Your task to perform on an android device: Go to Wikipedia Image 0: 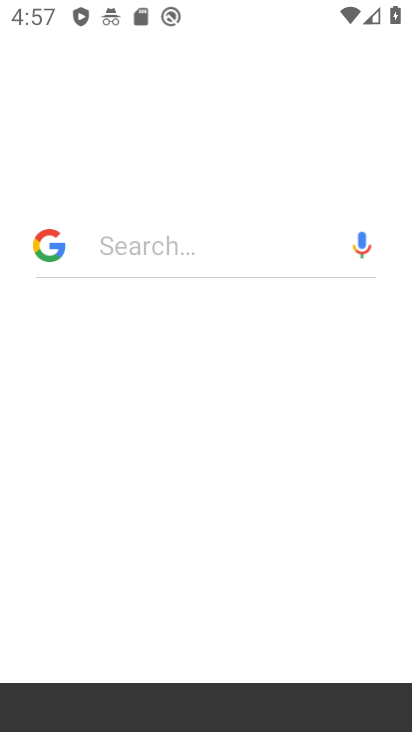
Step 0: drag from (366, 574) to (364, 538)
Your task to perform on an android device: Go to Wikipedia Image 1: 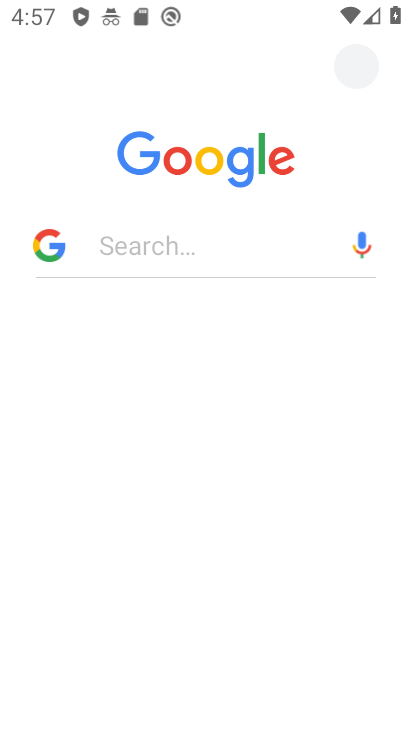
Step 1: press home button
Your task to perform on an android device: Go to Wikipedia Image 2: 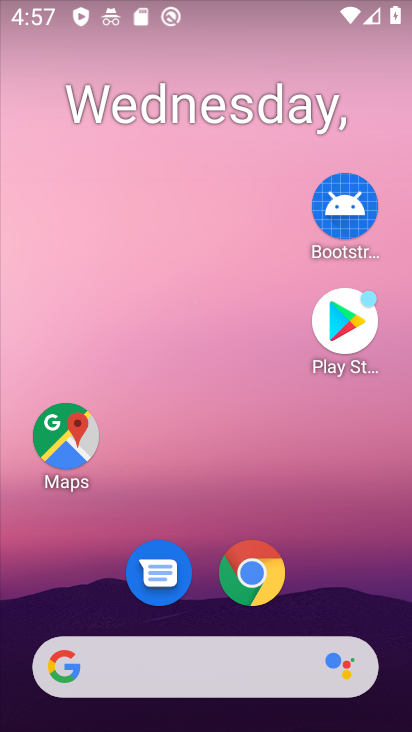
Step 2: click (234, 584)
Your task to perform on an android device: Go to Wikipedia Image 3: 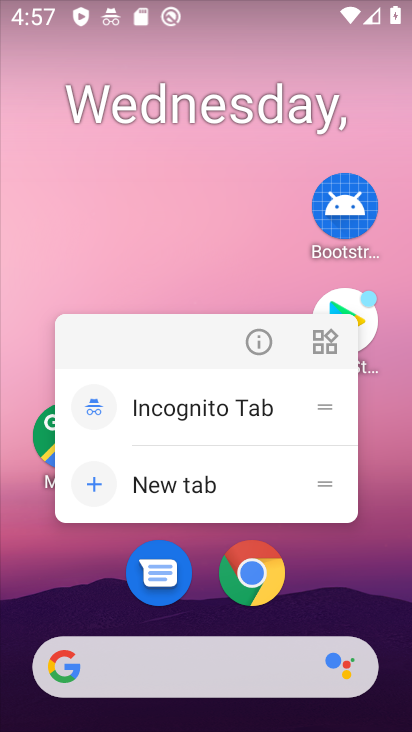
Step 3: click (234, 584)
Your task to perform on an android device: Go to Wikipedia Image 4: 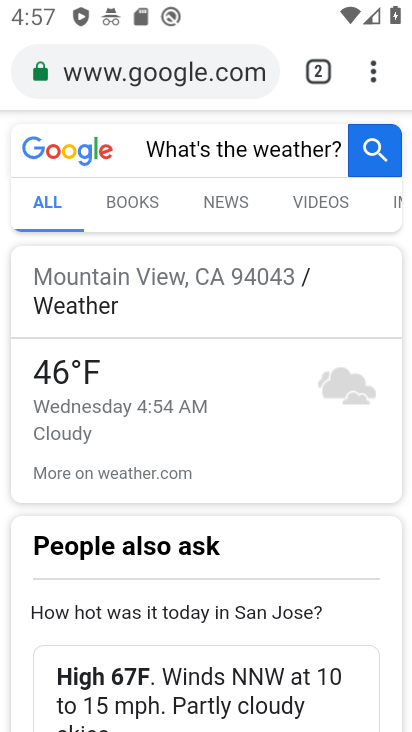
Step 4: click (368, 57)
Your task to perform on an android device: Go to Wikipedia Image 5: 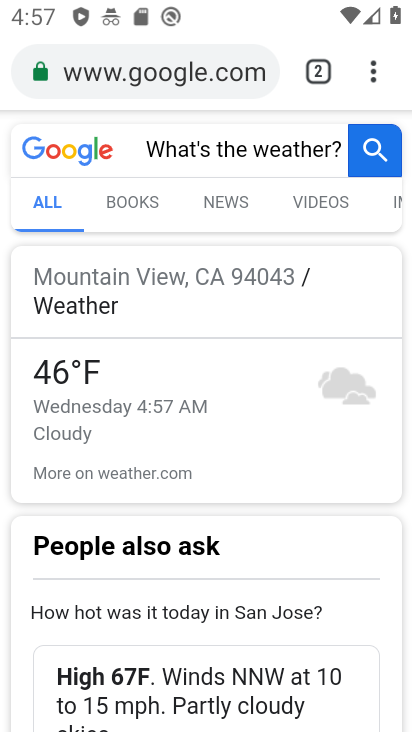
Step 5: click (380, 71)
Your task to perform on an android device: Go to Wikipedia Image 6: 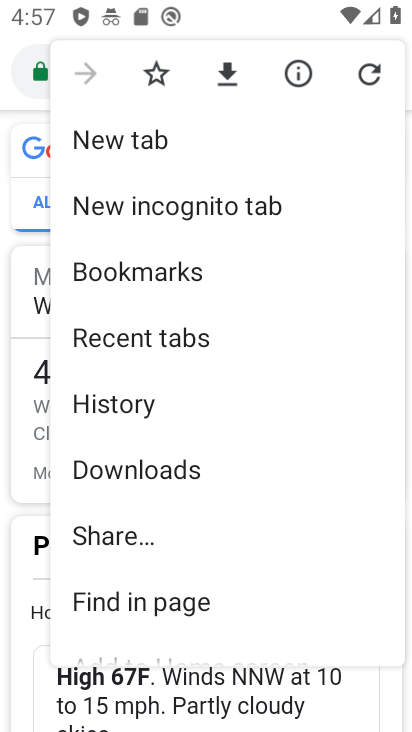
Step 6: click (311, 142)
Your task to perform on an android device: Go to Wikipedia Image 7: 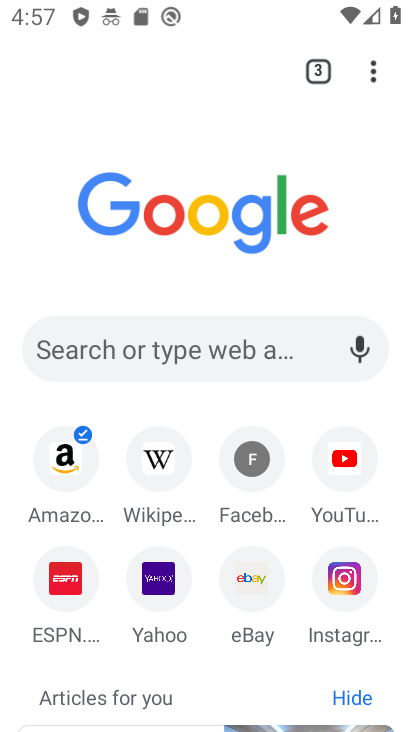
Step 7: click (146, 474)
Your task to perform on an android device: Go to Wikipedia Image 8: 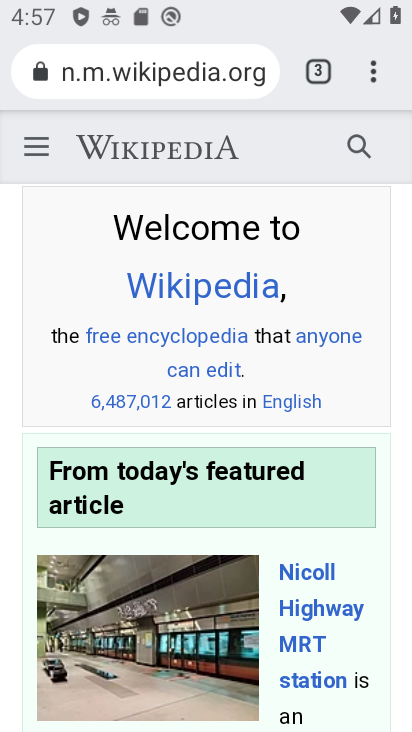
Step 8: task complete